Your task to perform on an android device: check battery use Image 0: 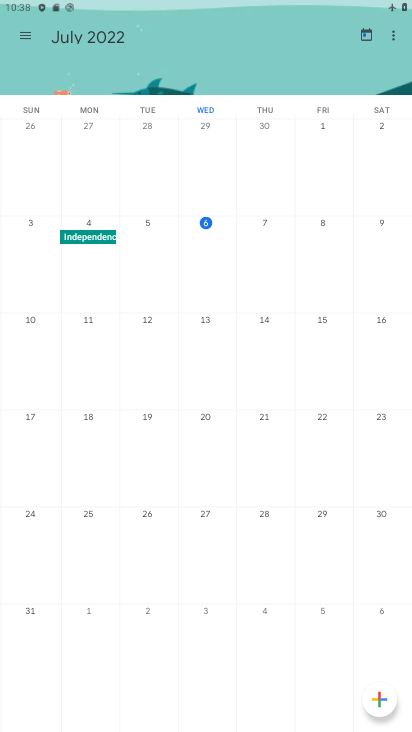
Step 0: press back button
Your task to perform on an android device: check battery use Image 1: 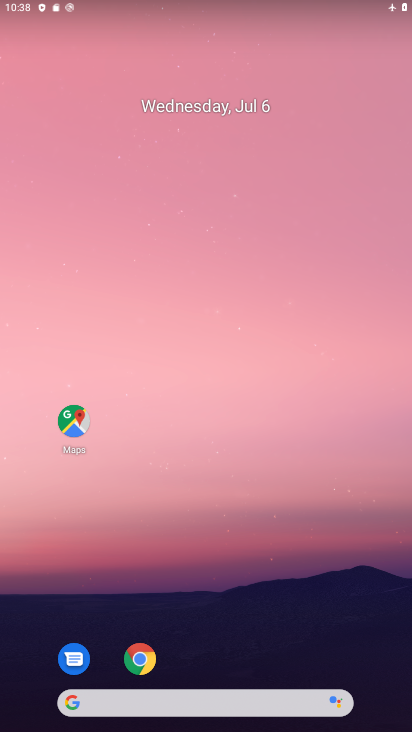
Step 1: drag from (237, 617) to (307, 55)
Your task to perform on an android device: check battery use Image 2: 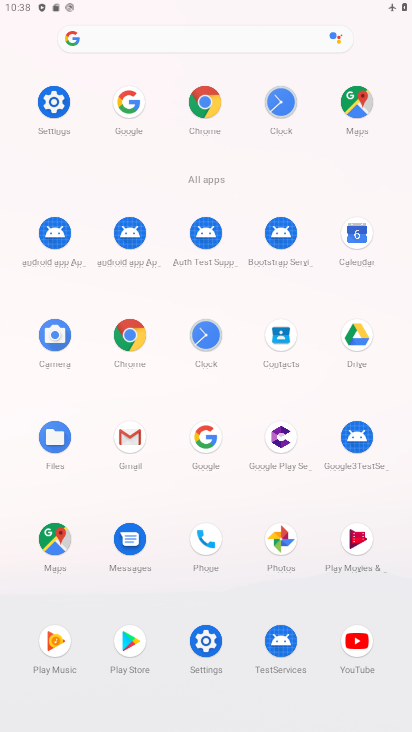
Step 2: click (46, 102)
Your task to perform on an android device: check battery use Image 3: 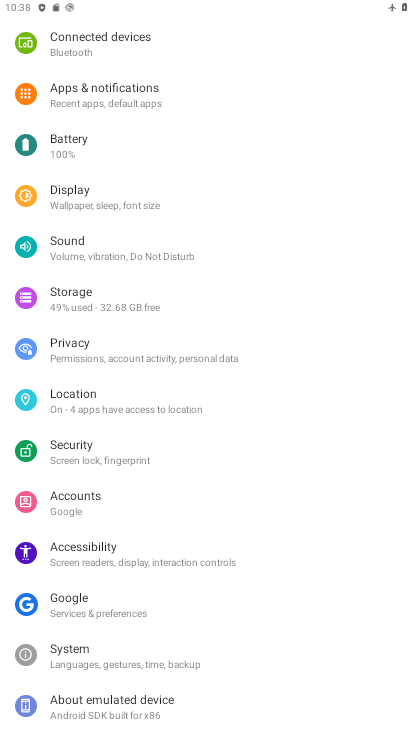
Step 3: click (105, 137)
Your task to perform on an android device: check battery use Image 4: 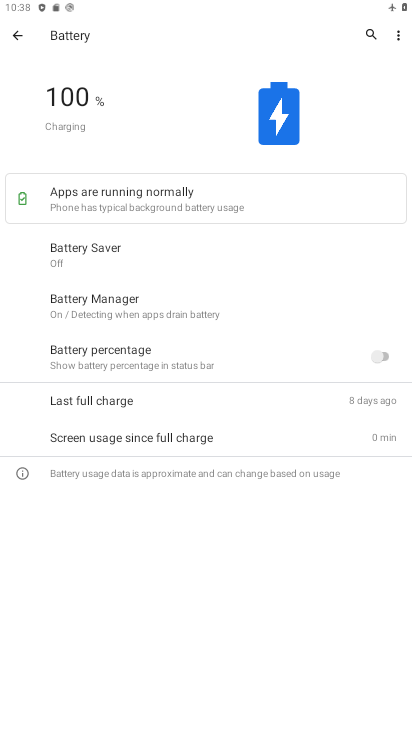
Step 4: click (15, 37)
Your task to perform on an android device: check battery use Image 5: 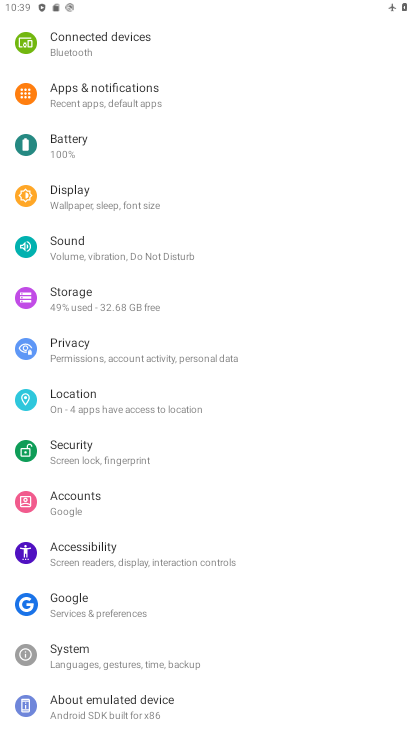
Step 5: click (96, 141)
Your task to perform on an android device: check battery use Image 6: 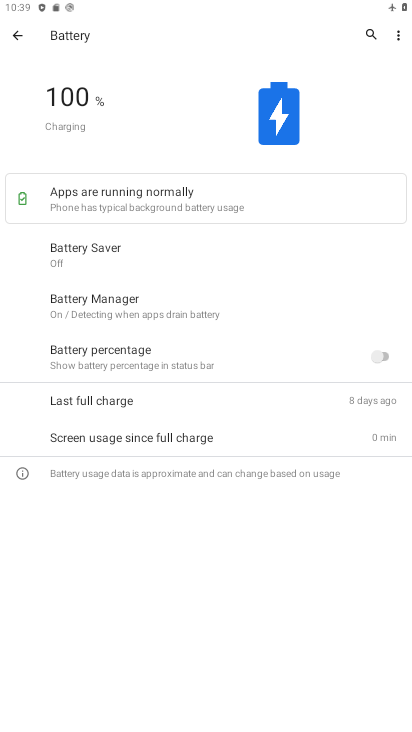
Step 6: task complete